Your task to perform on an android device: turn pop-ups on in chrome Image 0: 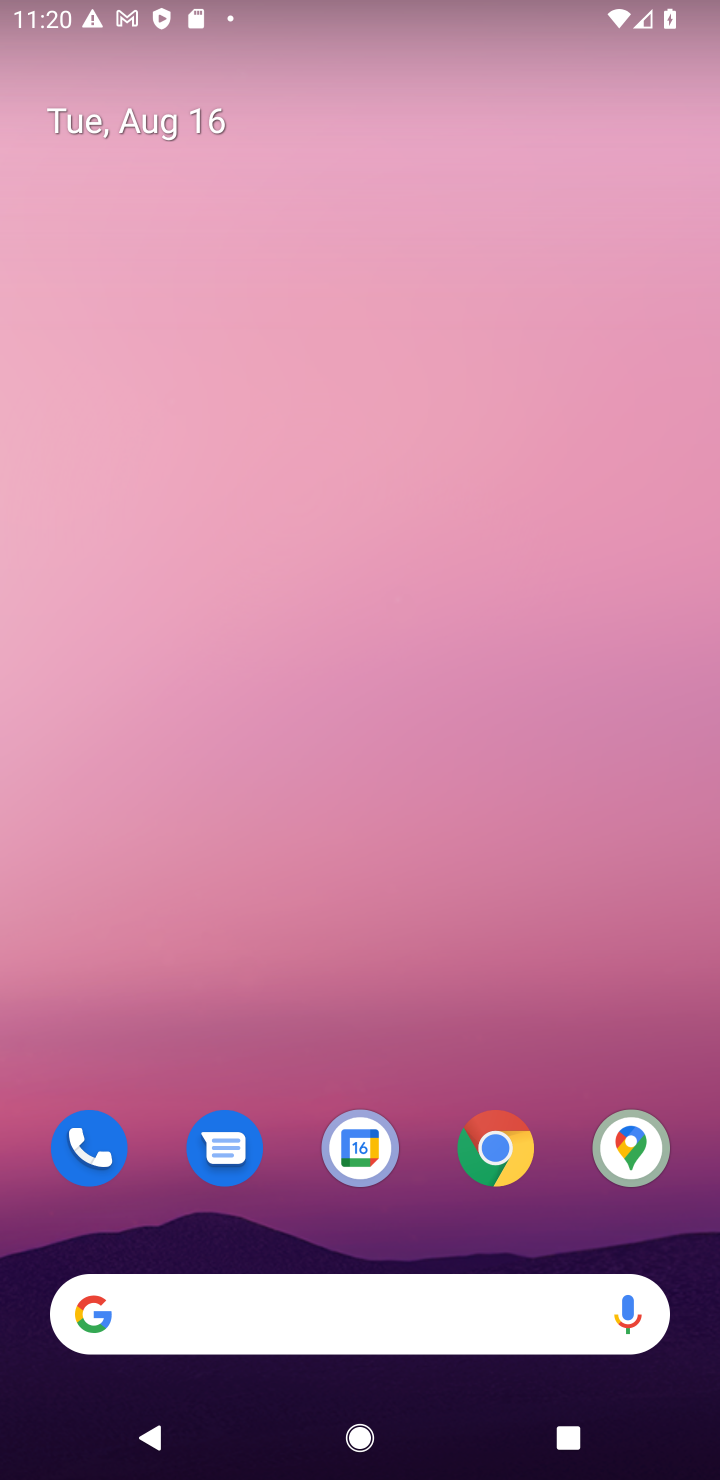
Step 0: press home button
Your task to perform on an android device: turn pop-ups on in chrome Image 1: 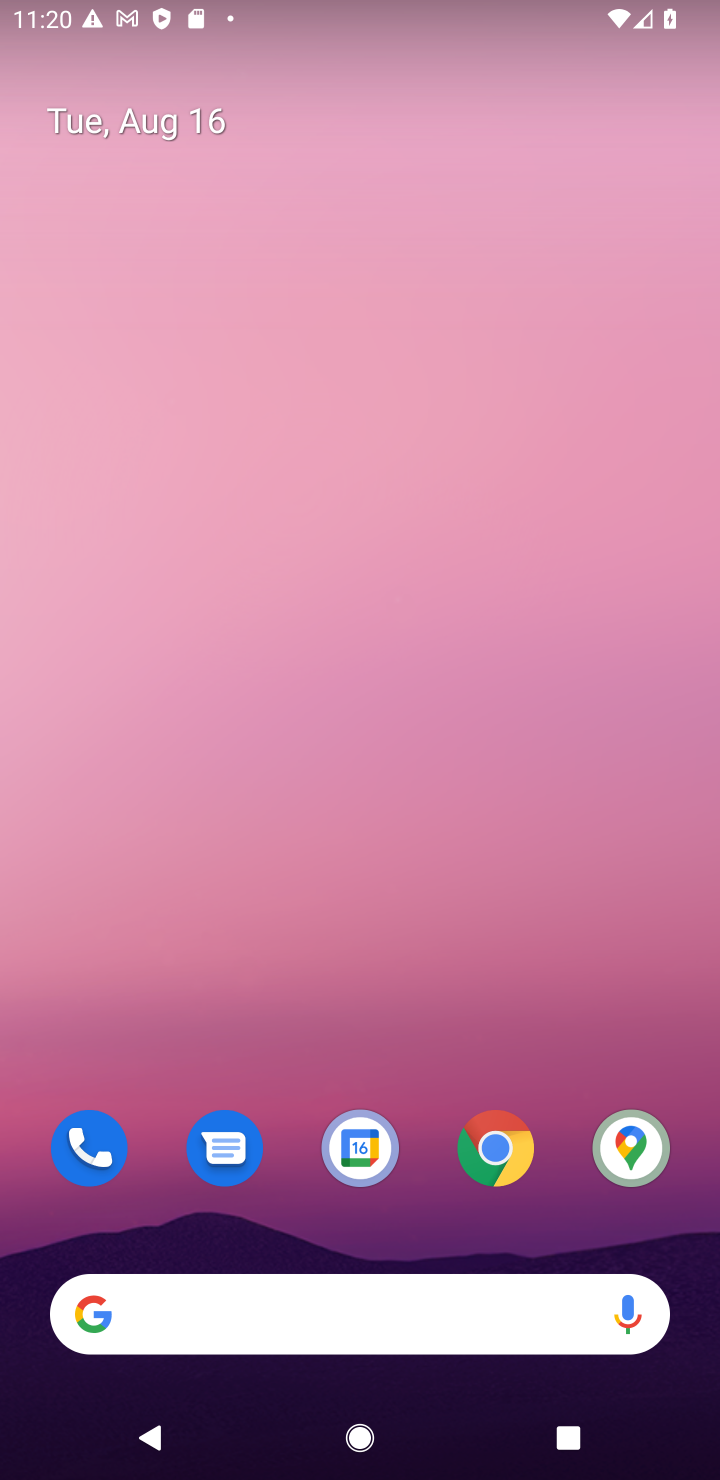
Step 1: press home button
Your task to perform on an android device: turn pop-ups on in chrome Image 2: 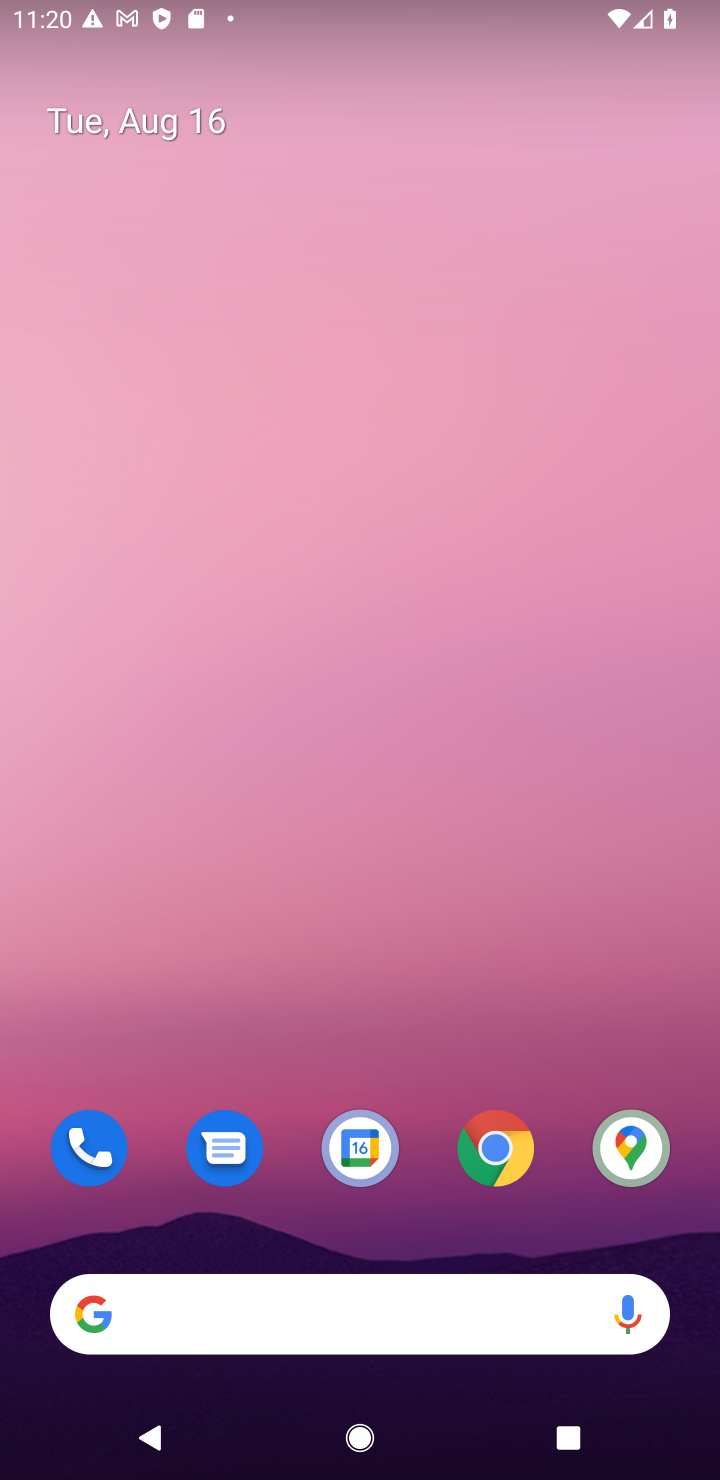
Step 2: press home button
Your task to perform on an android device: turn pop-ups on in chrome Image 3: 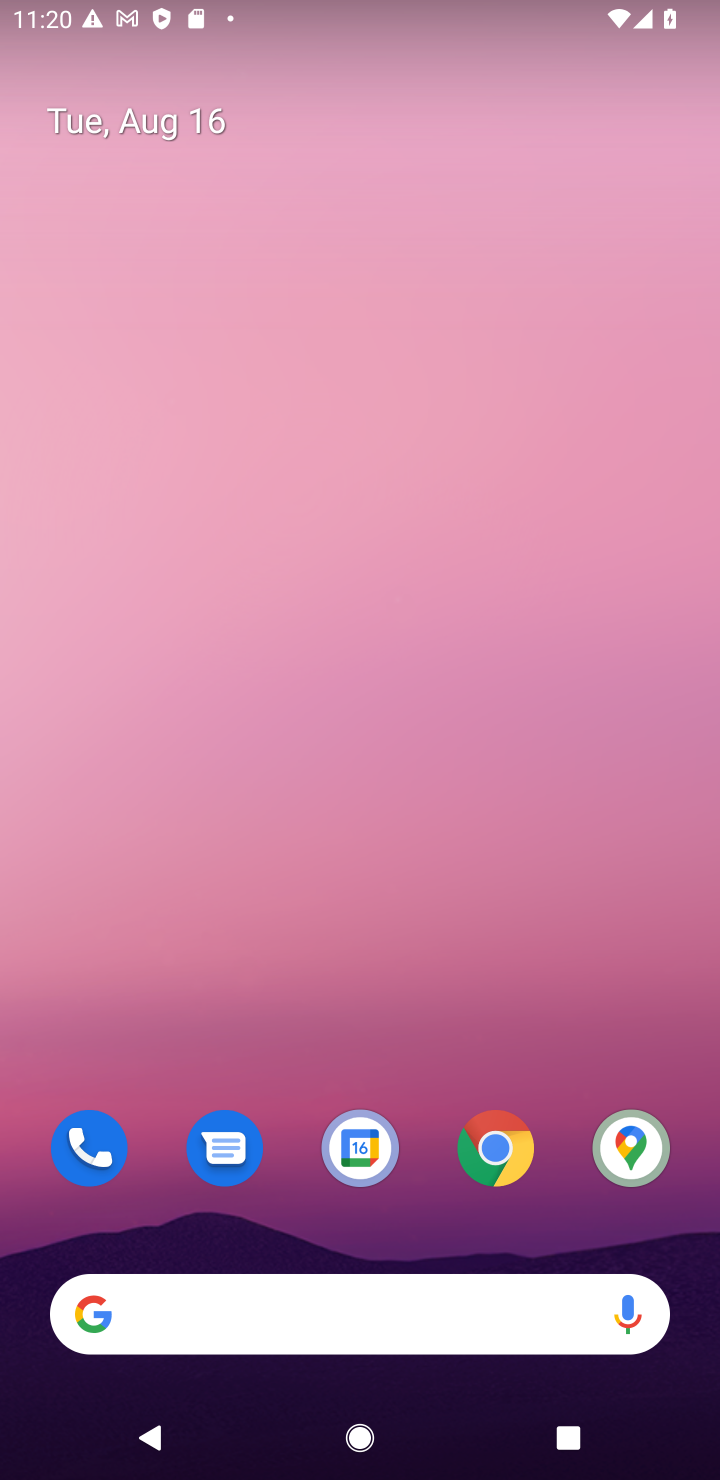
Step 3: click (593, 1194)
Your task to perform on an android device: turn pop-ups on in chrome Image 4: 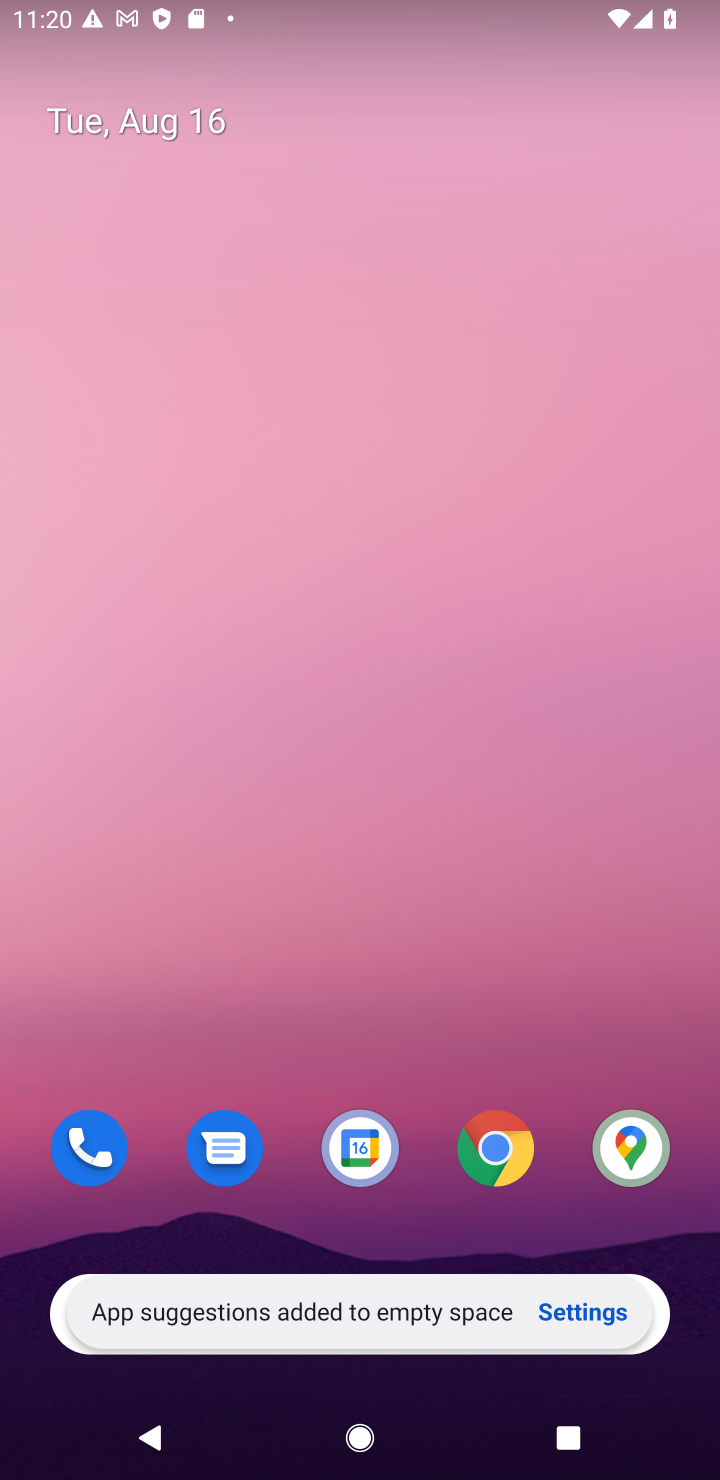
Step 4: click (520, 1141)
Your task to perform on an android device: turn pop-ups on in chrome Image 5: 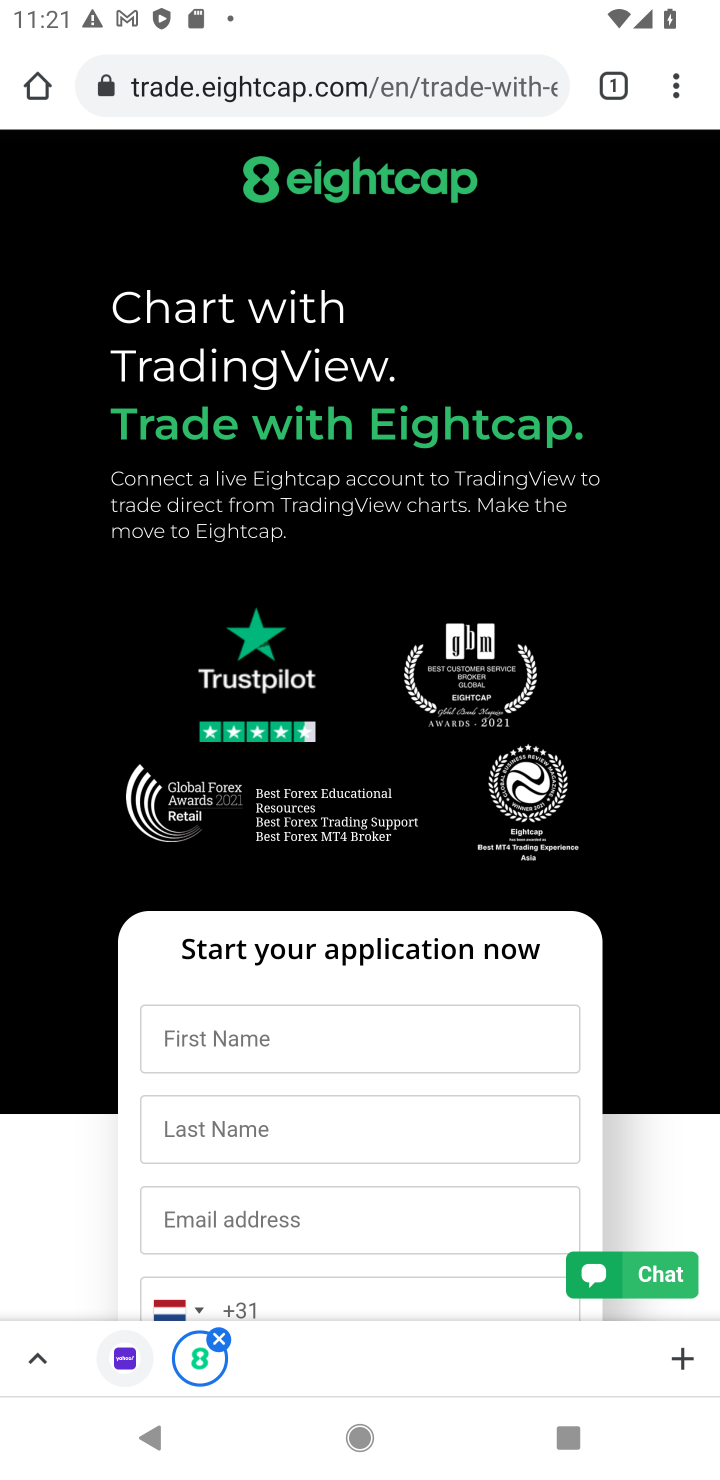
Step 5: click (667, 87)
Your task to perform on an android device: turn pop-ups on in chrome Image 6: 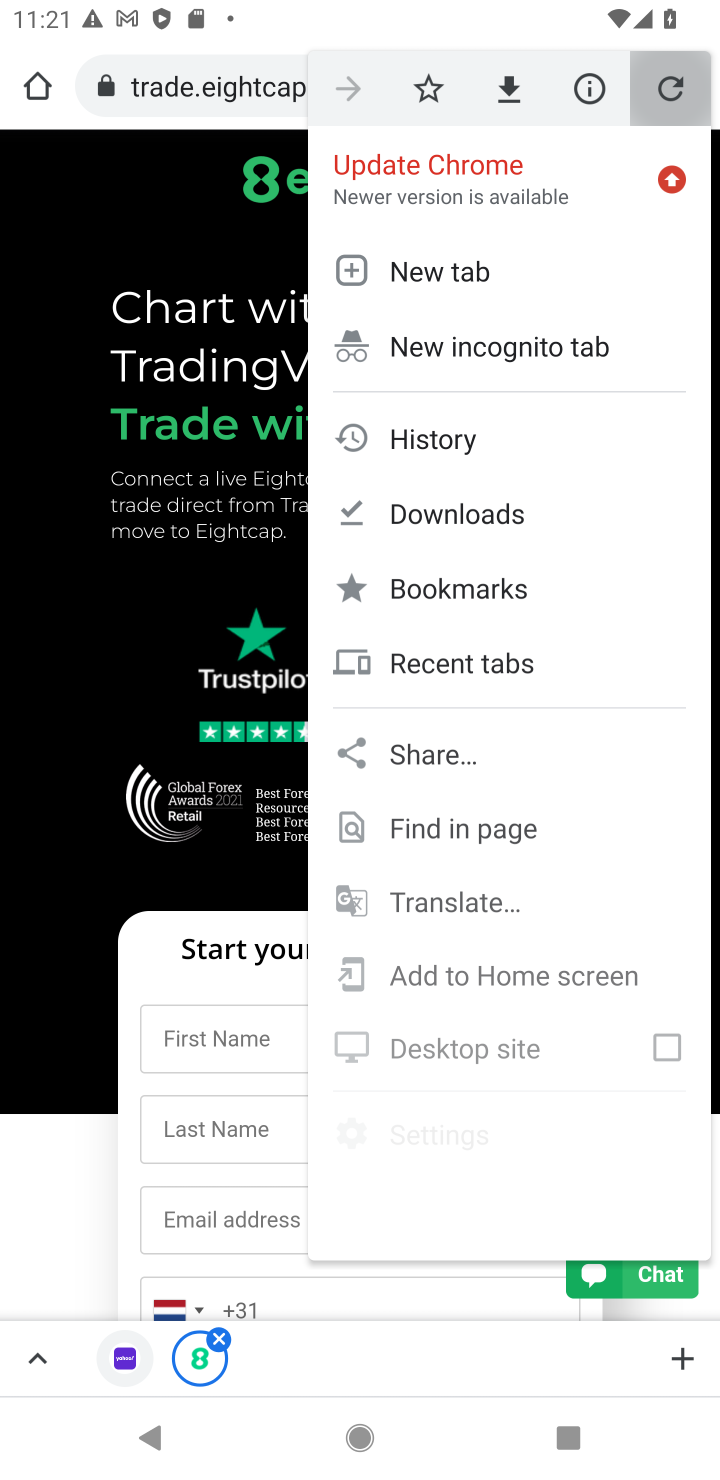
Step 6: drag from (663, 125) to (591, 551)
Your task to perform on an android device: turn pop-ups on in chrome Image 7: 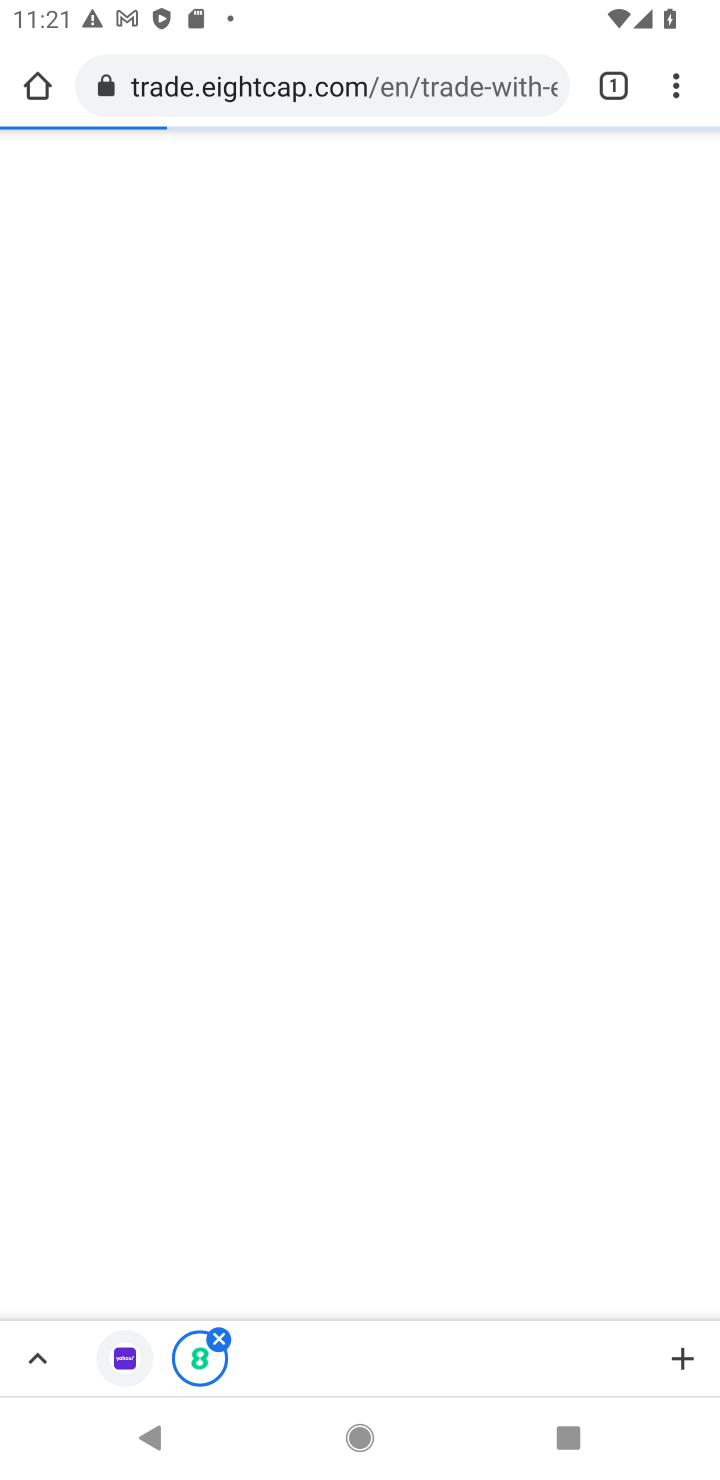
Step 7: click (458, 1341)
Your task to perform on an android device: turn pop-ups on in chrome Image 8: 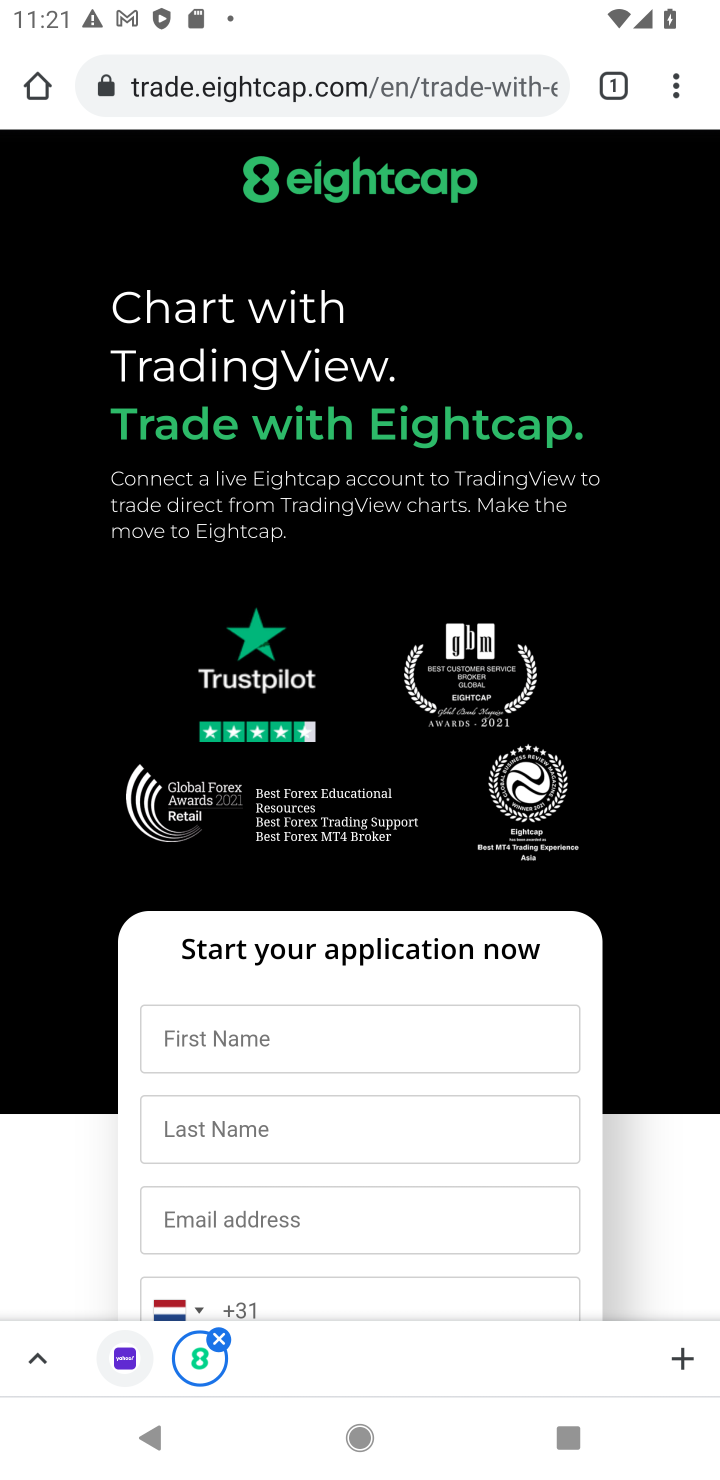
Step 8: drag from (668, 97) to (474, 1149)
Your task to perform on an android device: turn pop-ups on in chrome Image 9: 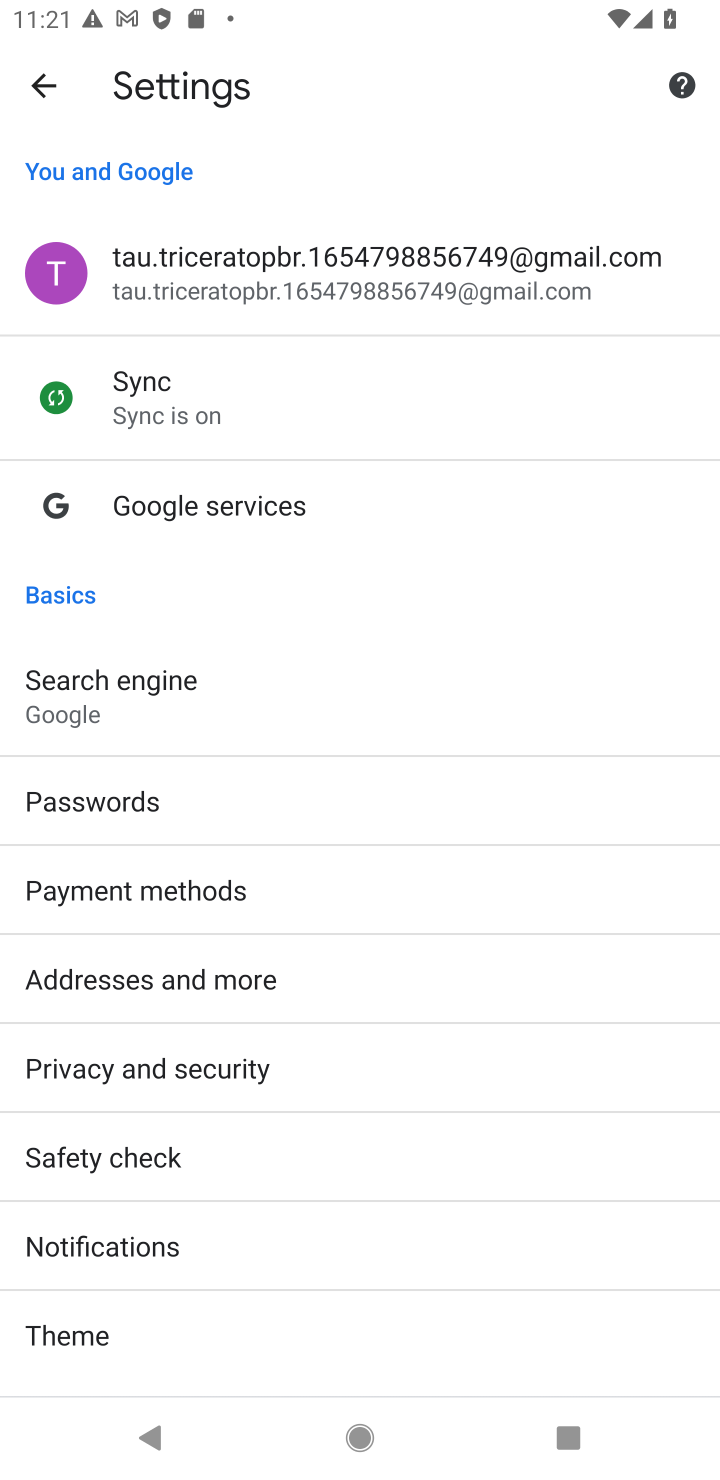
Step 9: drag from (474, 1149) to (245, 230)
Your task to perform on an android device: turn pop-ups on in chrome Image 10: 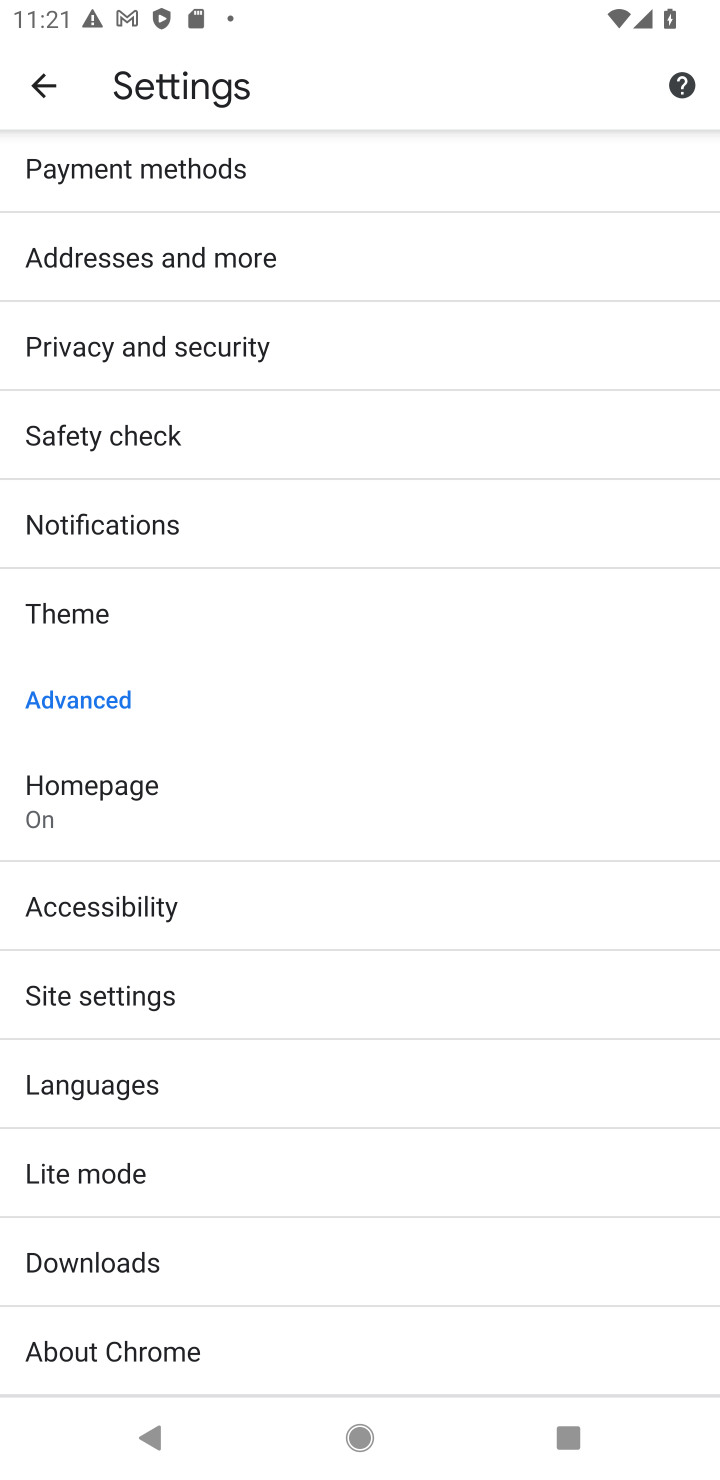
Step 10: click (155, 1017)
Your task to perform on an android device: turn pop-ups on in chrome Image 11: 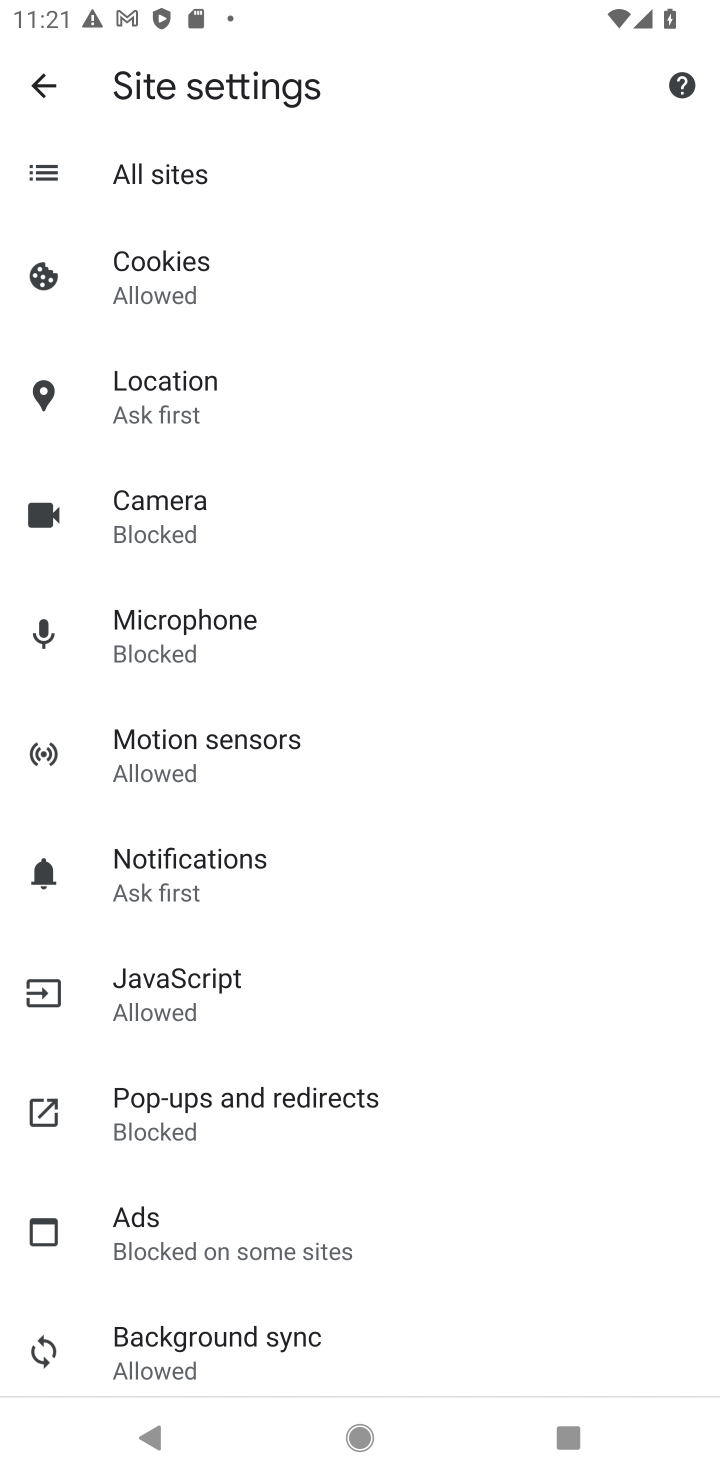
Step 11: click (200, 1115)
Your task to perform on an android device: turn pop-ups on in chrome Image 12: 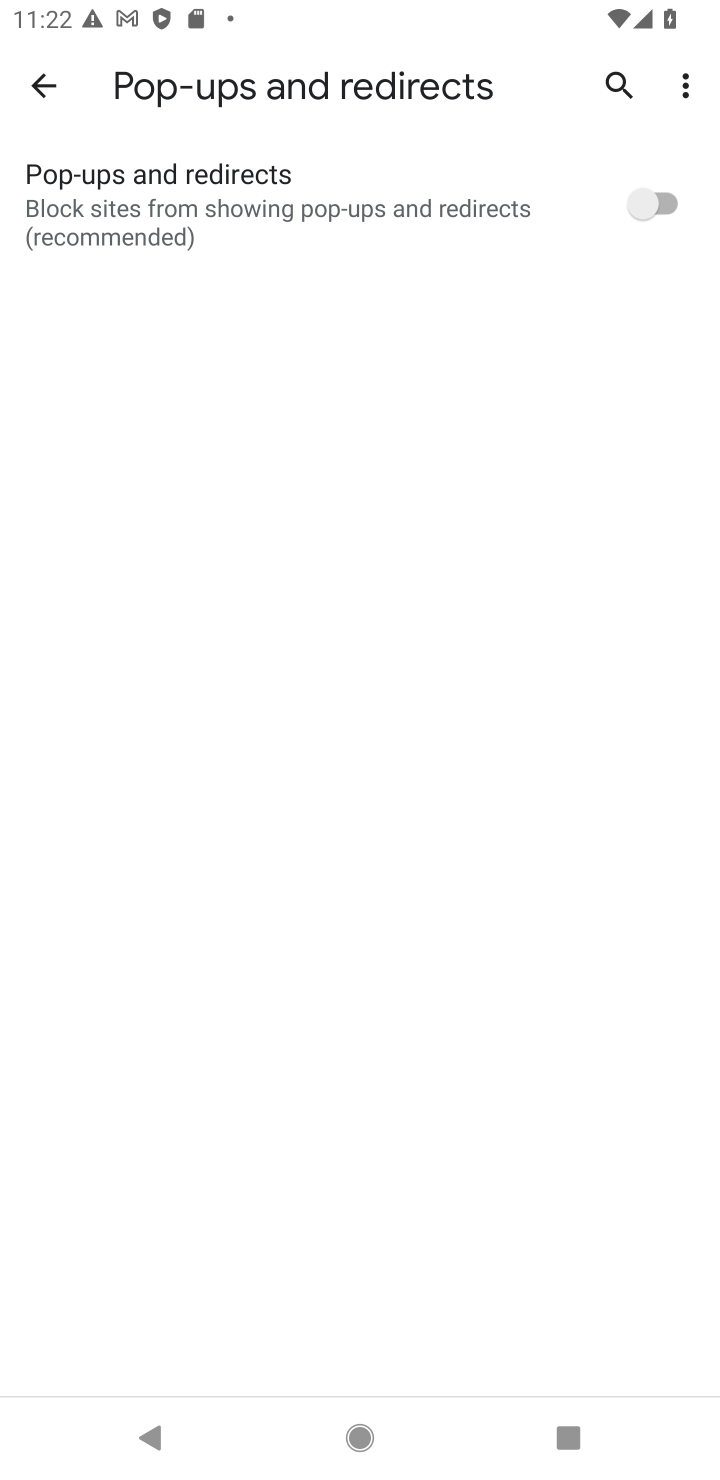
Step 12: click (265, 168)
Your task to perform on an android device: turn pop-ups on in chrome Image 13: 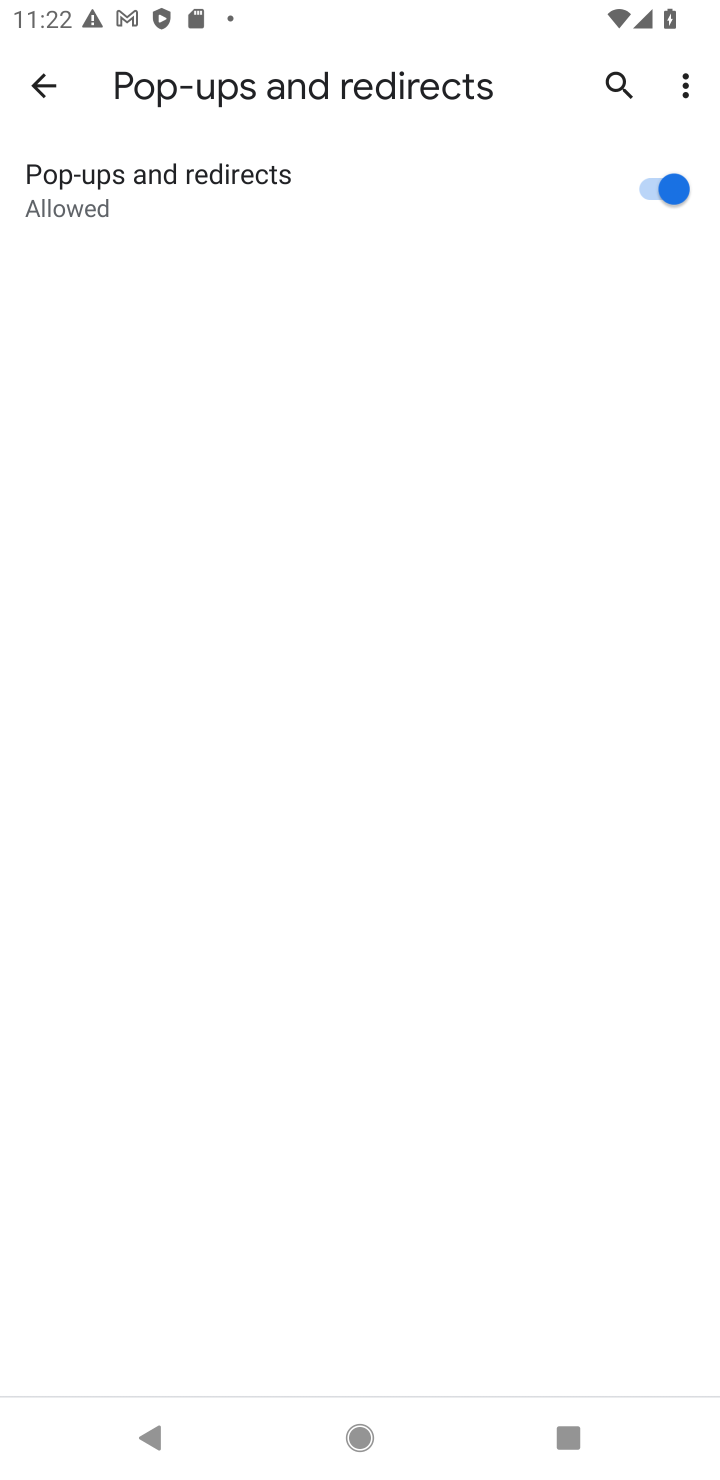
Step 13: task complete